Your task to perform on an android device: change the clock display to digital Image 0: 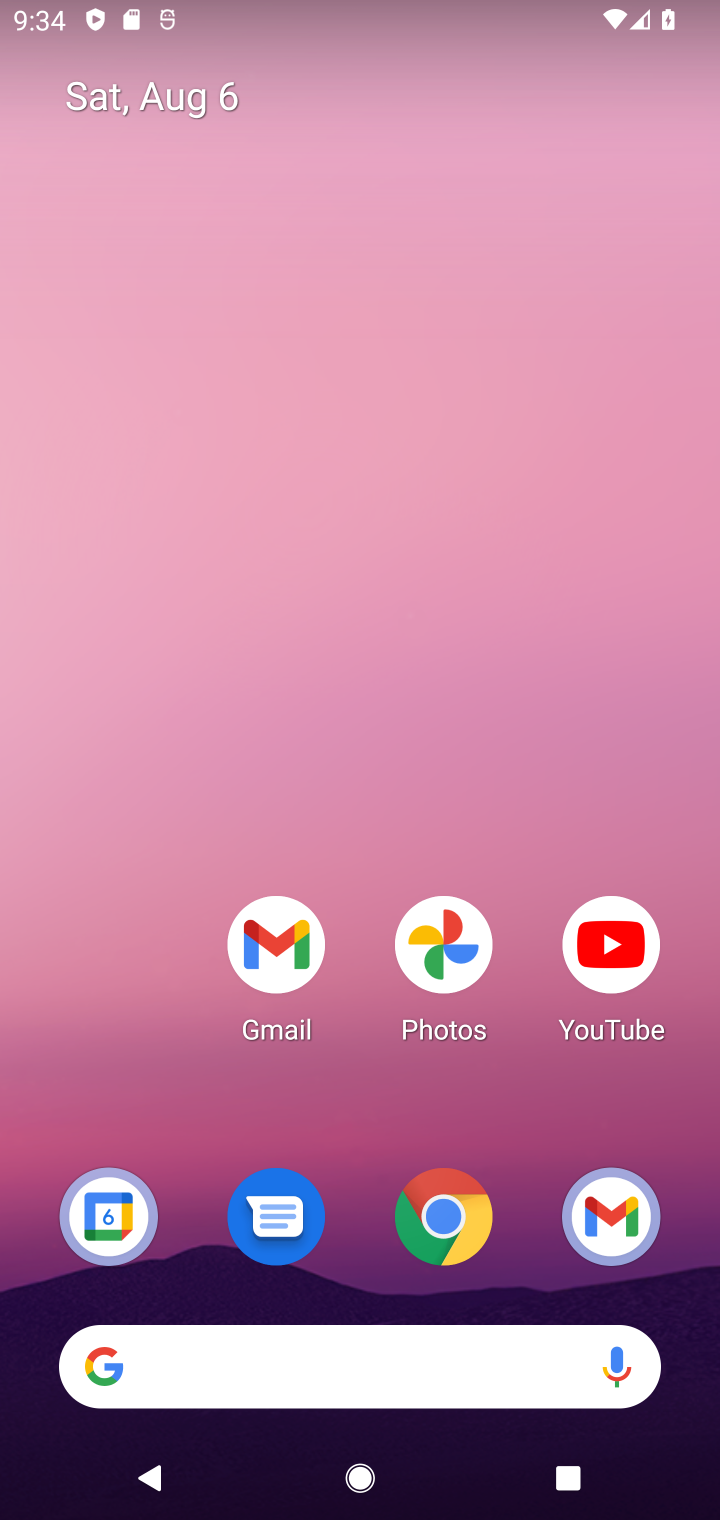
Step 0: drag from (593, 731) to (679, 230)
Your task to perform on an android device: change the clock display to digital Image 1: 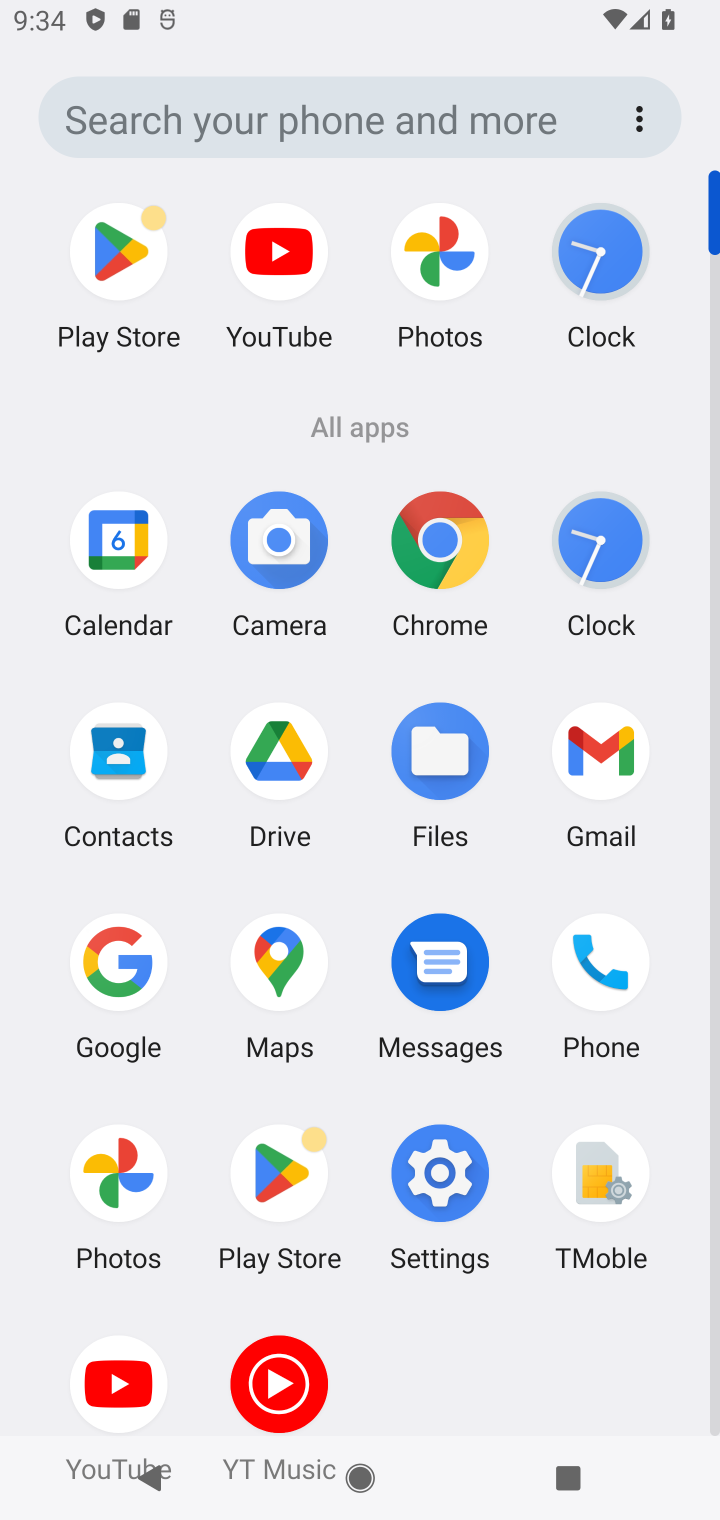
Step 1: click (588, 548)
Your task to perform on an android device: change the clock display to digital Image 2: 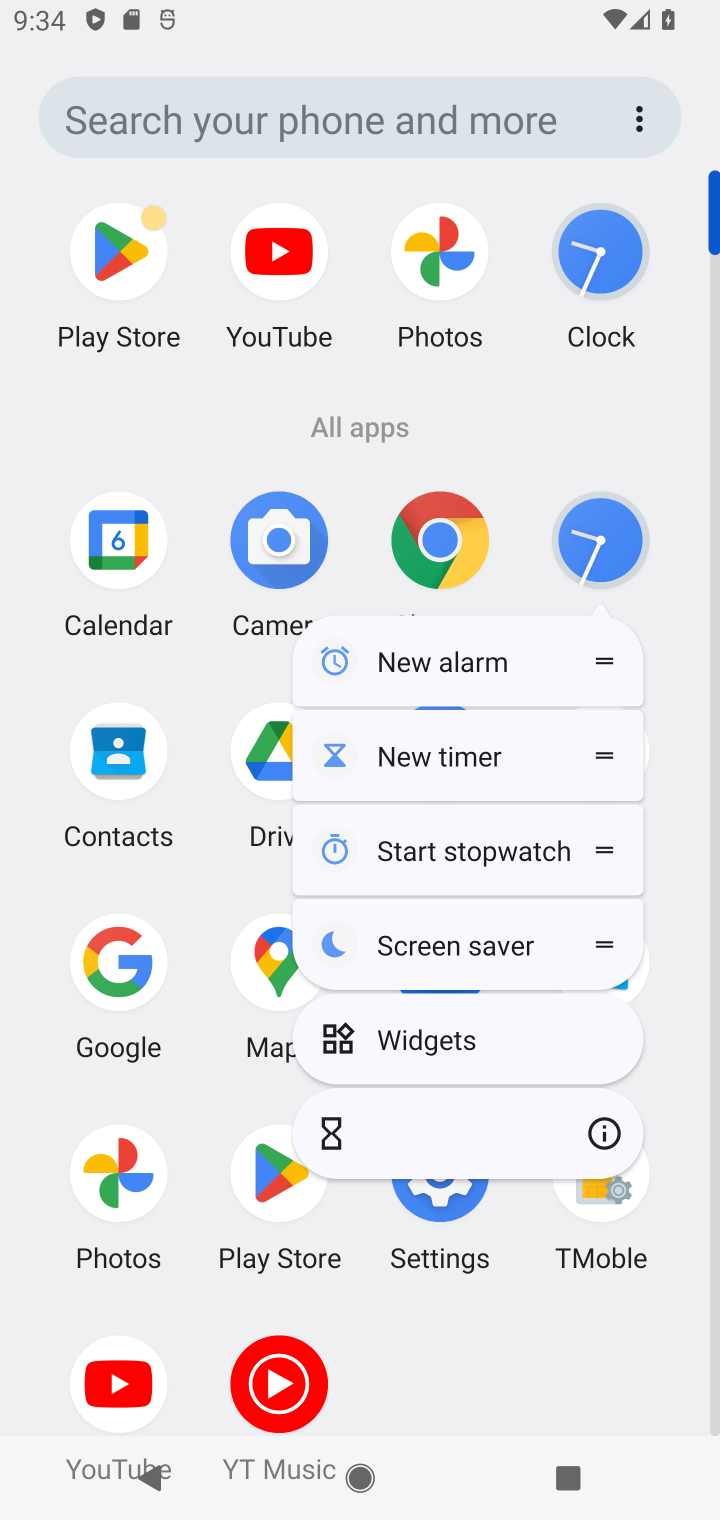
Step 2: click (588, 548)
Your task to perform on an android device: change the clock display to digital Image 3: 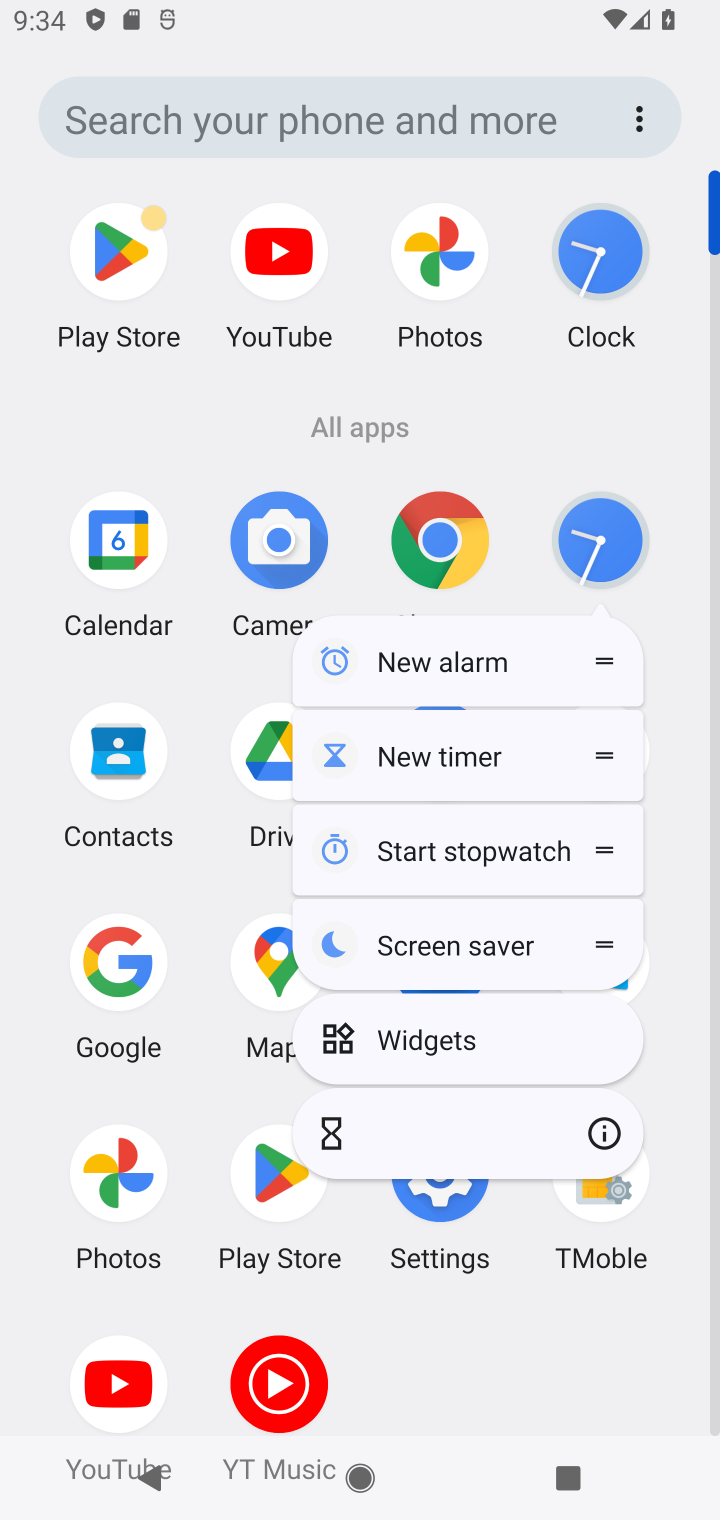
Step 3: click (602, 527)
Your task to perform on an android device: change the clock display to digital Image 4: 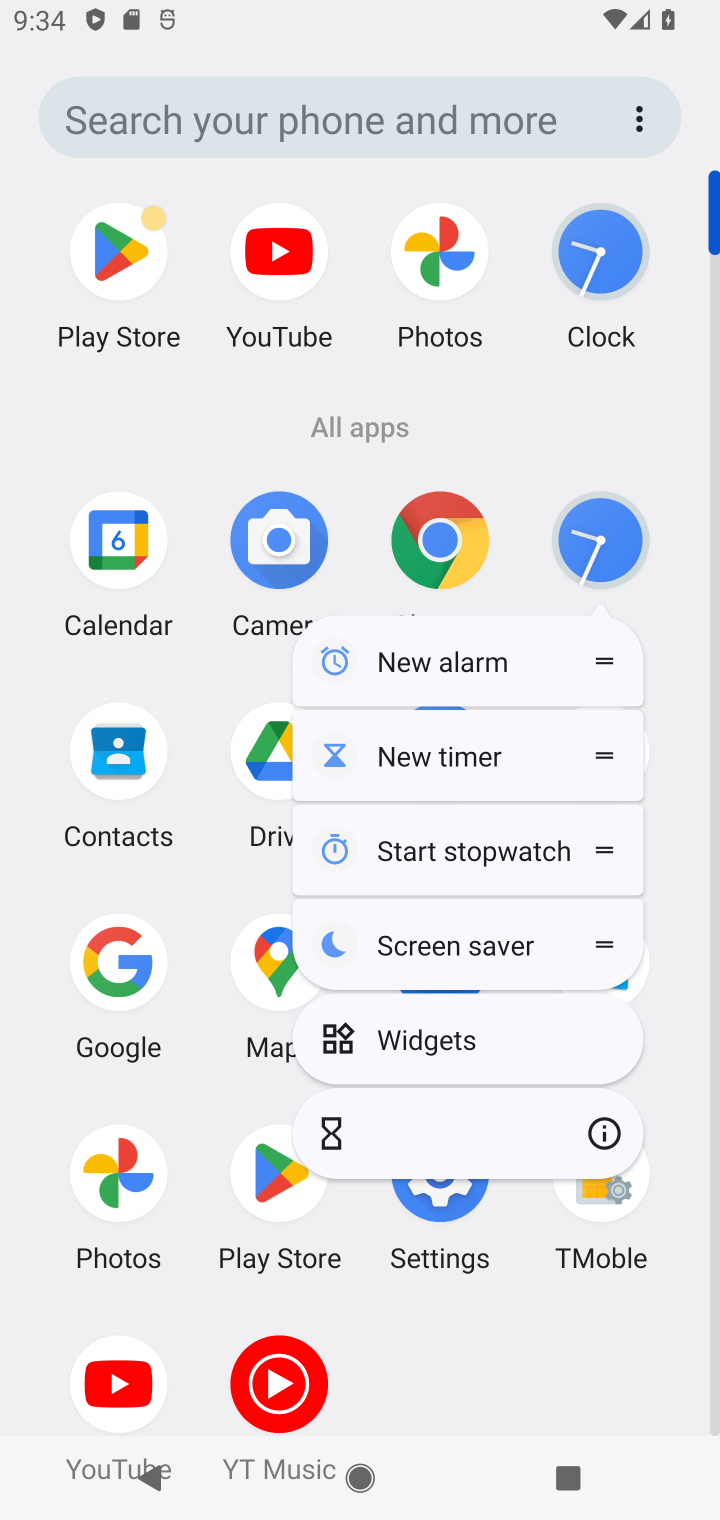
Step 4: click (613, 564)
Your task to perform on an android device: change the clock display to digital Image 5: 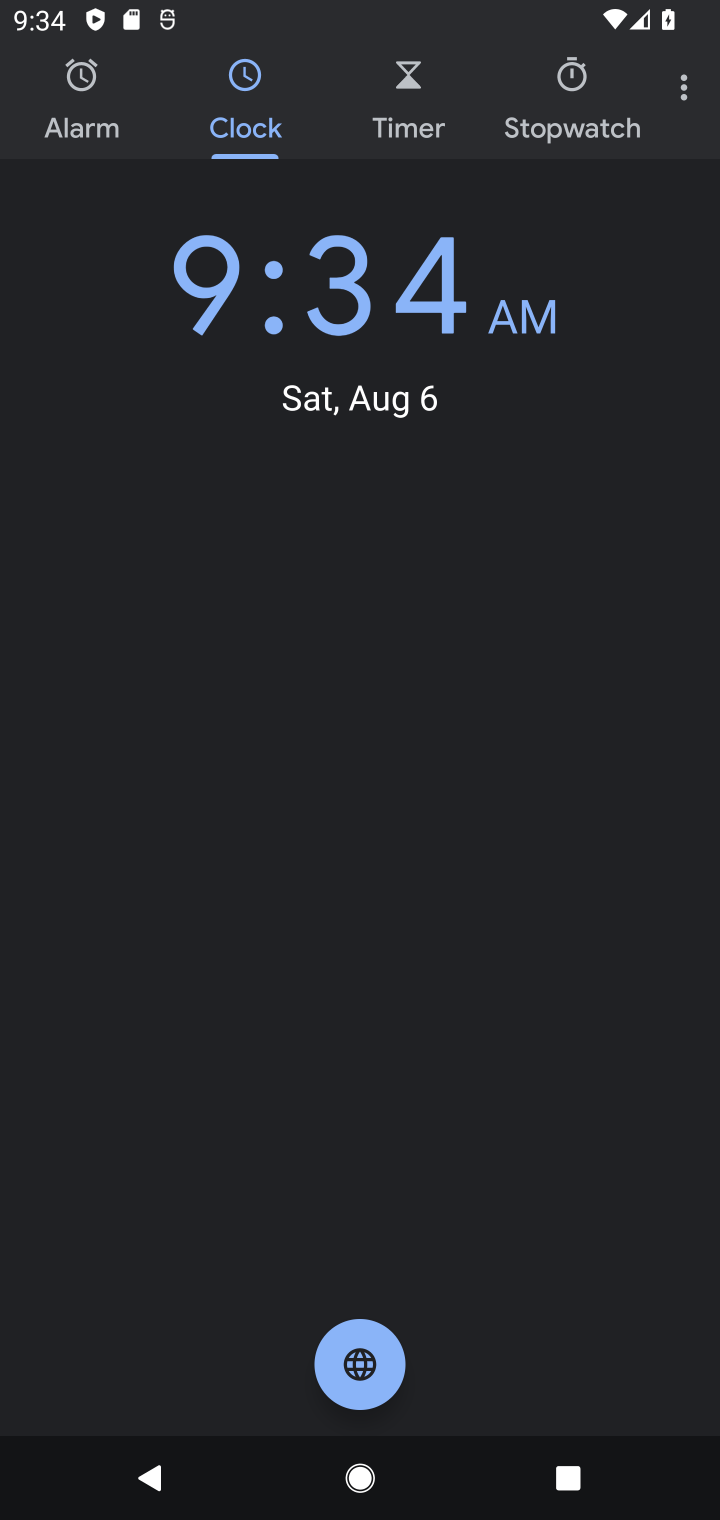
Step 5: click (668, 96)
Your task to perform on an android device: change the clock display to digital Image 6: 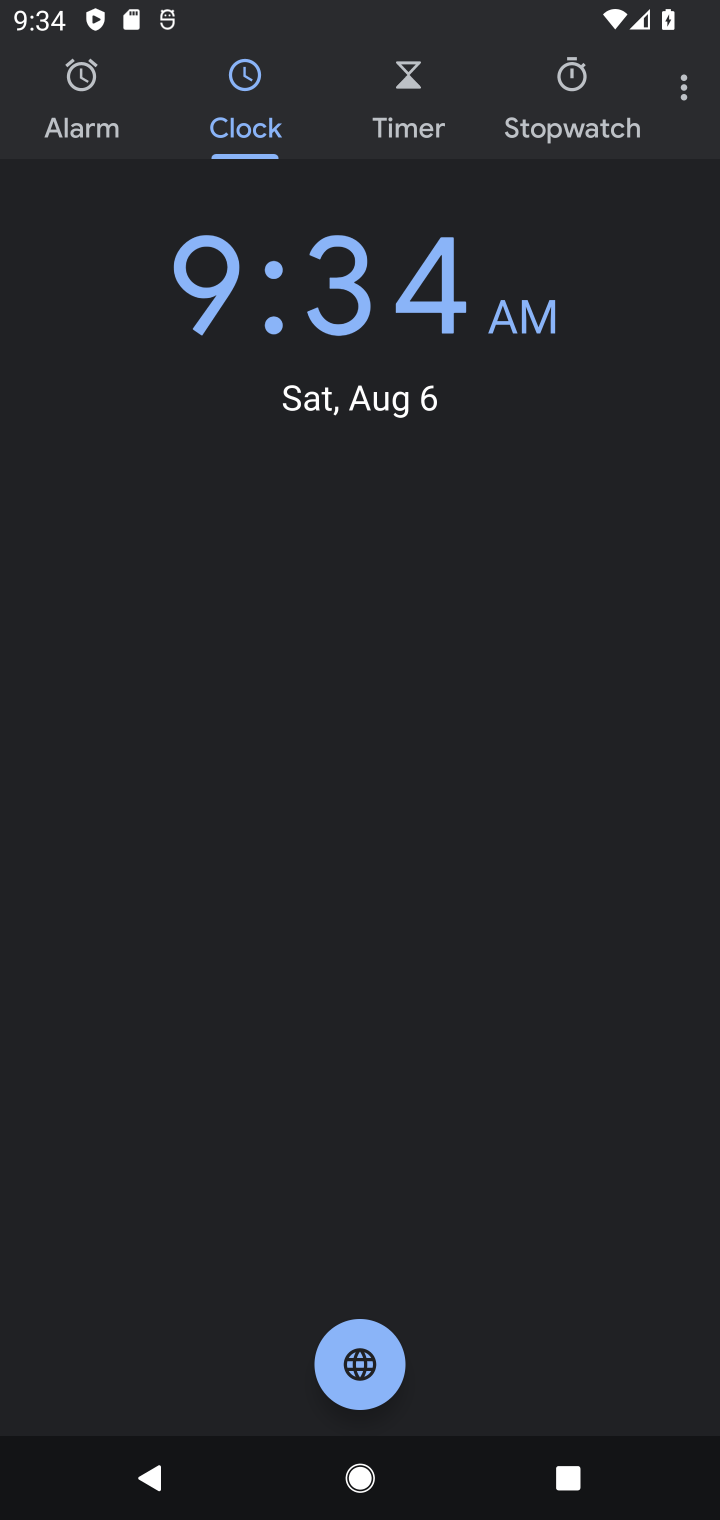
Step 6: click (670, 100)
Your task to perform on an android device: change the clock display to digital Image 7: 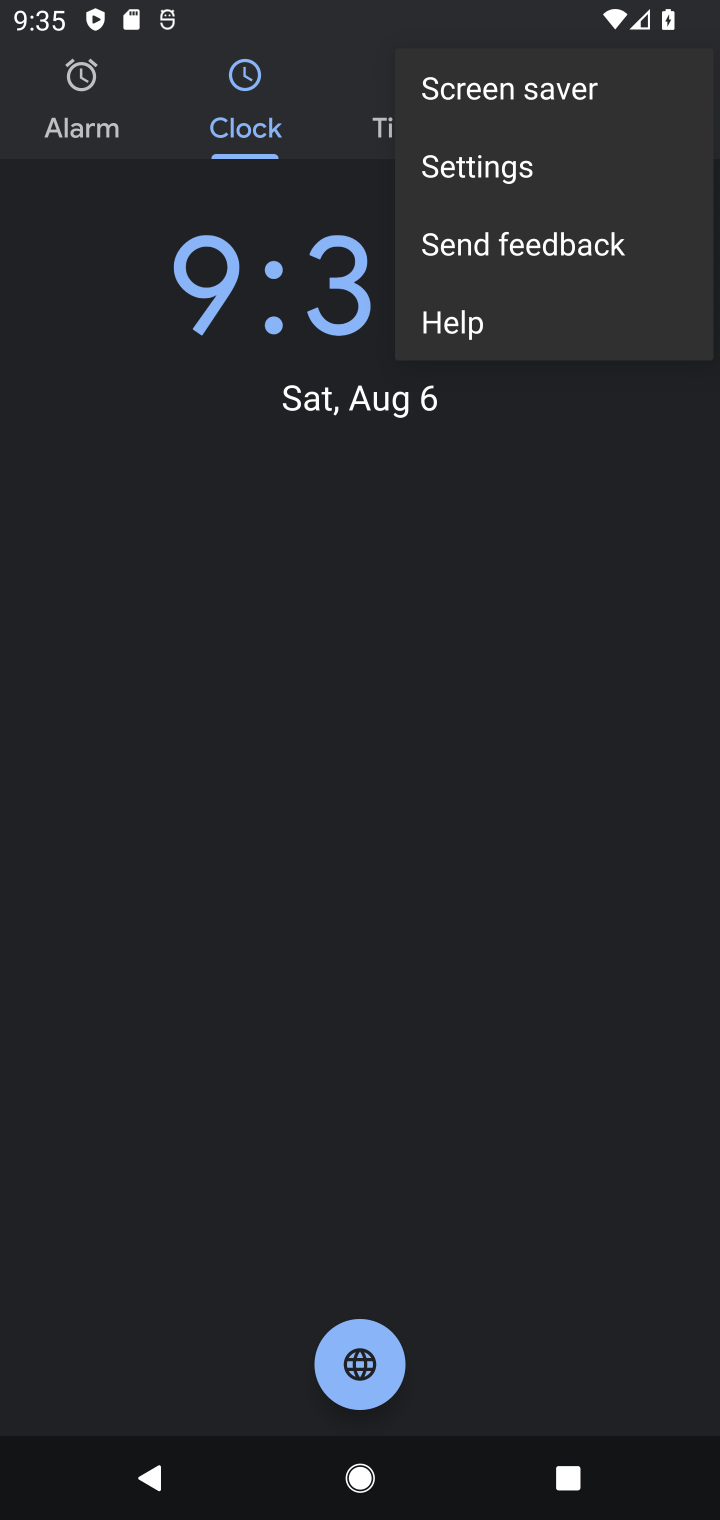
Step 7: click (501, 173)
Your task to perform on an android device: change the clock display to digital Image 8: 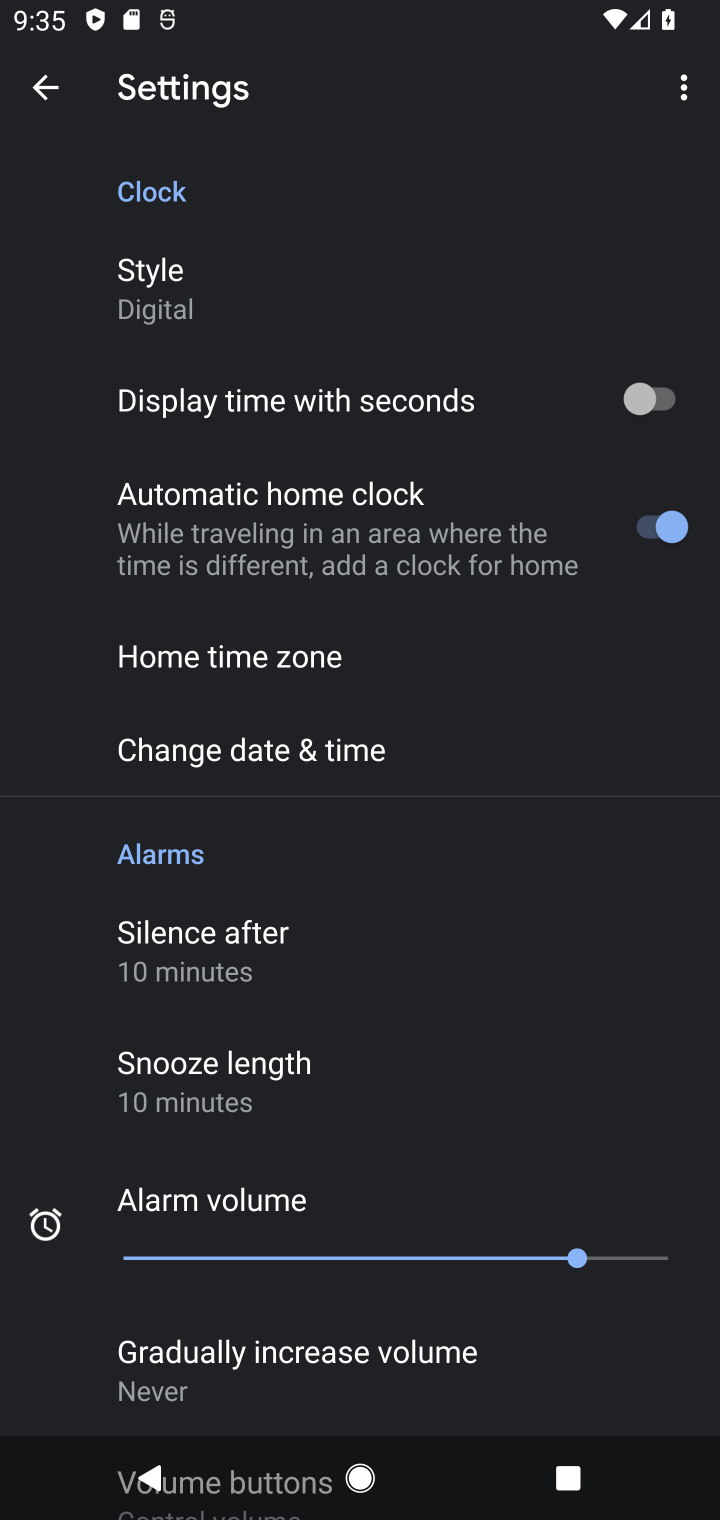
Step 8: task complete